Your task to perform on an android device: turn on improve location accuracy Image 0: 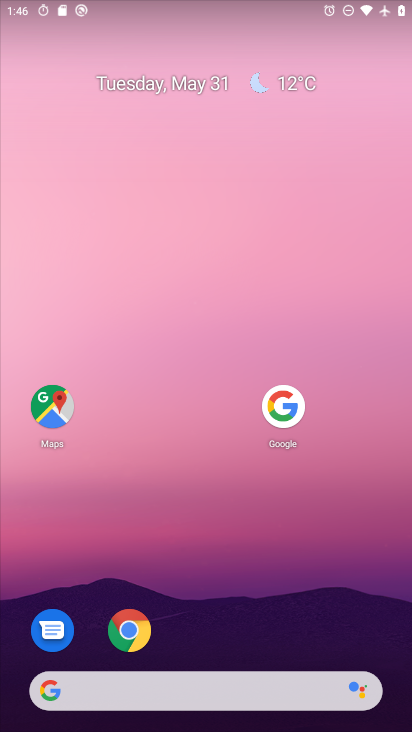
Step 0: press home button
Your task to perform on an android device: turn on improve location accuracy Image 1: 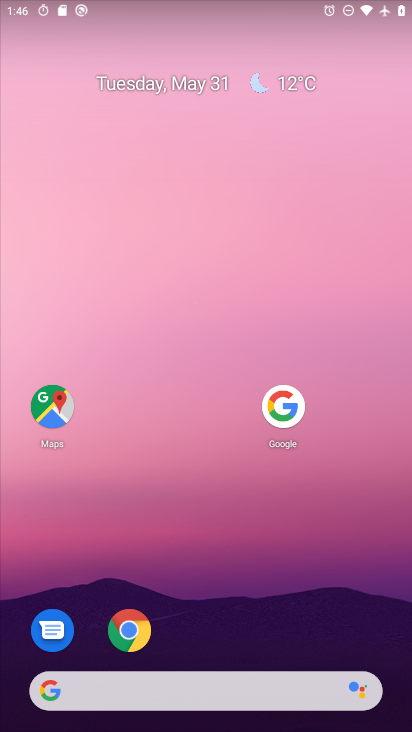
Step 1: drag from (154, 702) to (314, 174)
Your task to perform on an android device: turn on improve location accuracy Image 2: 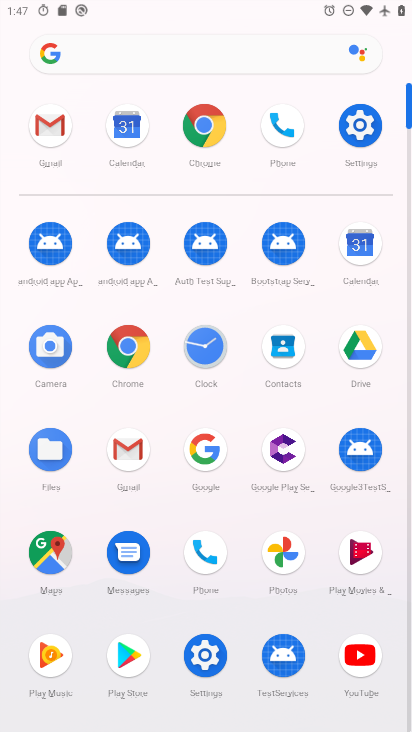
Step 2: click (364, 120)
Your task to perform on an android device: turn on improve location accuracy Image 3: 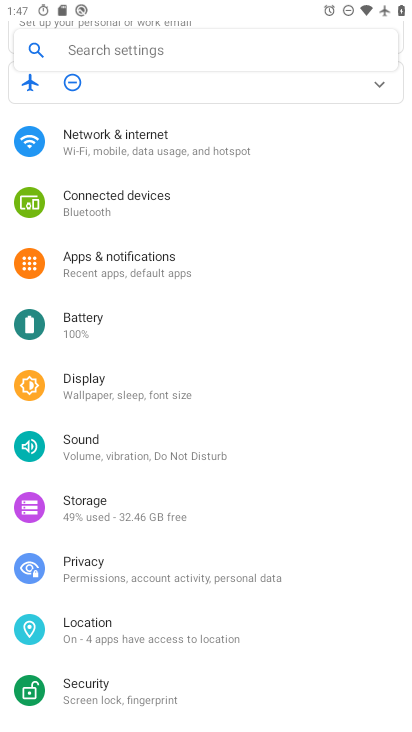
Step 3: click (113, 627)
Your task to perform on an android device: turn on improve location accuracy Image 4: 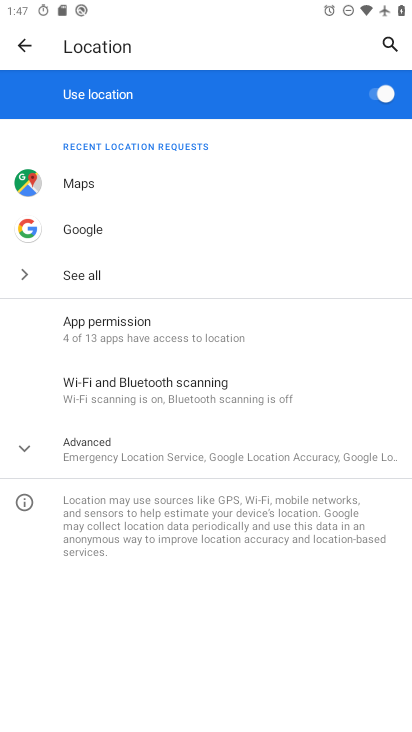
Step 4: click (108, 454)
Your task to perform on an android device: turn on improve location accuracy Image 5: 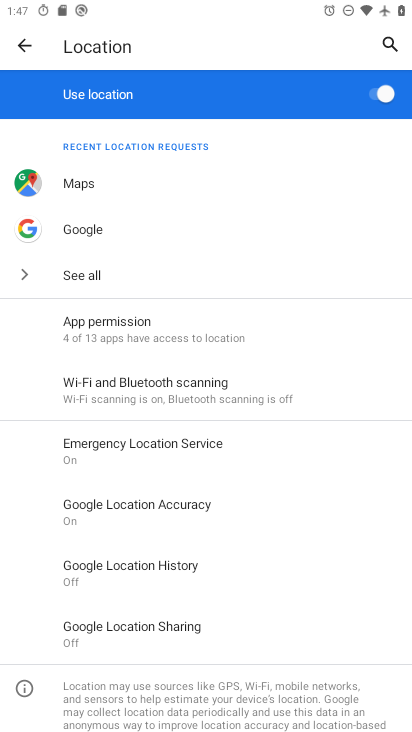
Step 5: click (137, 515)
Your task to perform on an android device: turn on improve location accuracy Image 6: 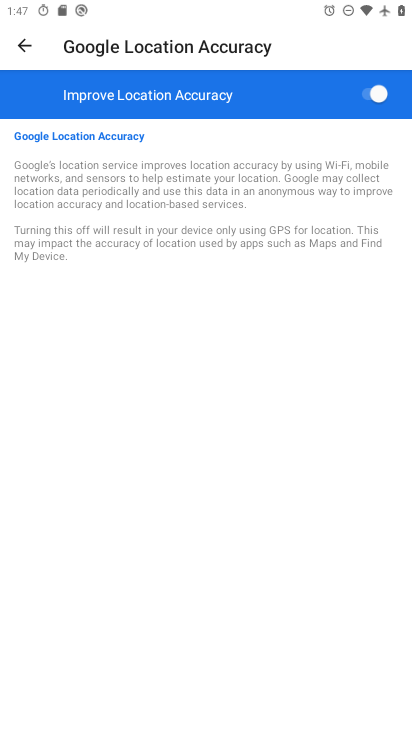
Step 6: task complete